Your task to perform on an android device: Search for good Thai restaurants Image 0: 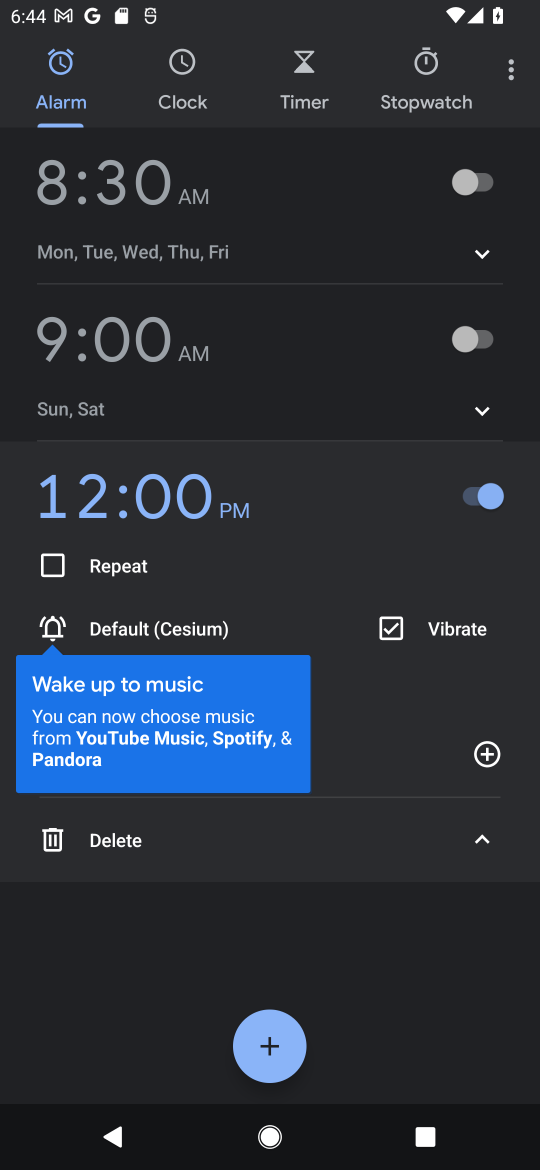
Step 0: press home button
Your task to perform on an android device: Search for good Thai restaurants Image 1: 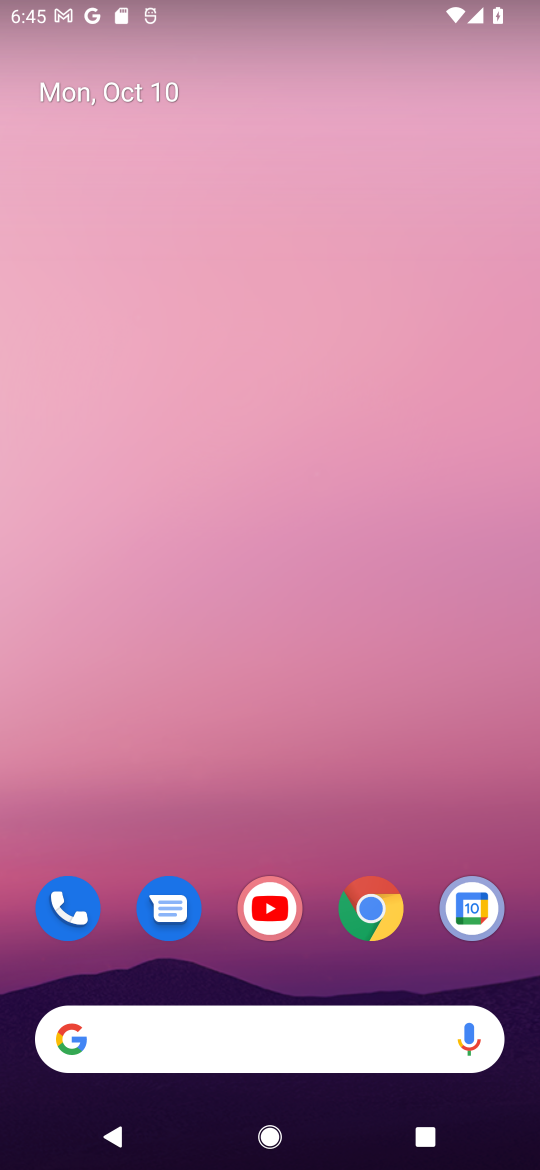
Step 1: drag from (276, 776) to (327, 79)
Your task to perform on an android device: Search for good Thai restaurants Image 2: 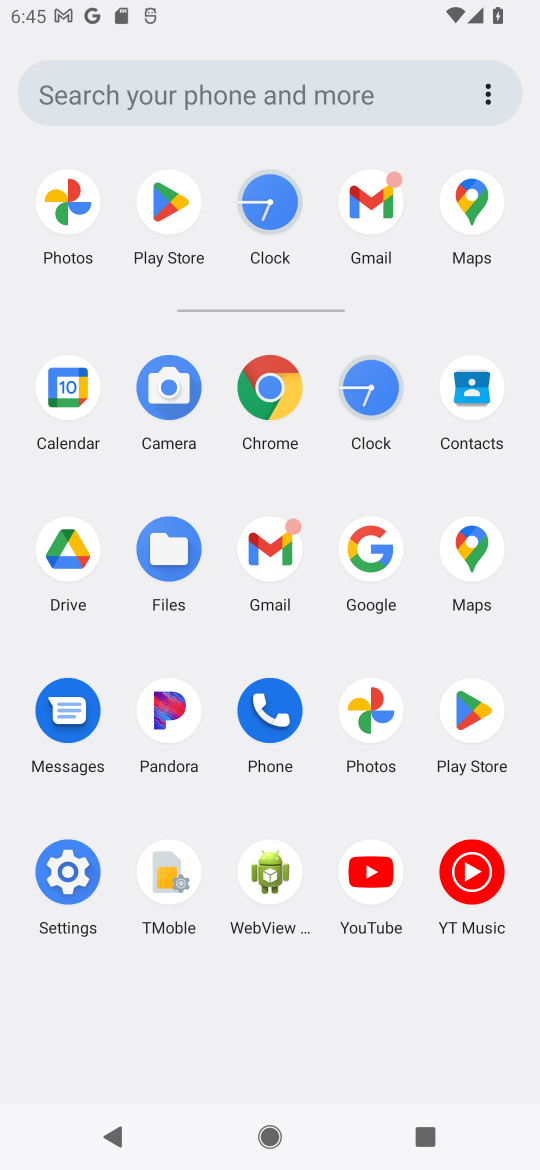
Step 2: click (266, 409)
Your task to perform on an android device: Search for good Thai restaurants Image 3: 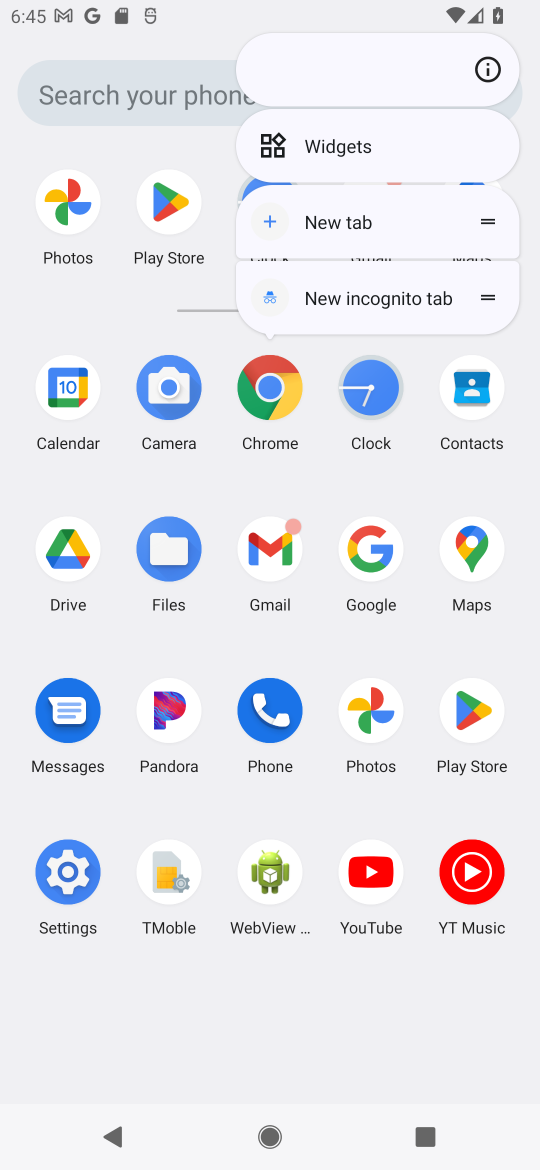
Step 3: click (277, 394)
Your task to perform on an android device: Search for good Thai restaurants Image 4: 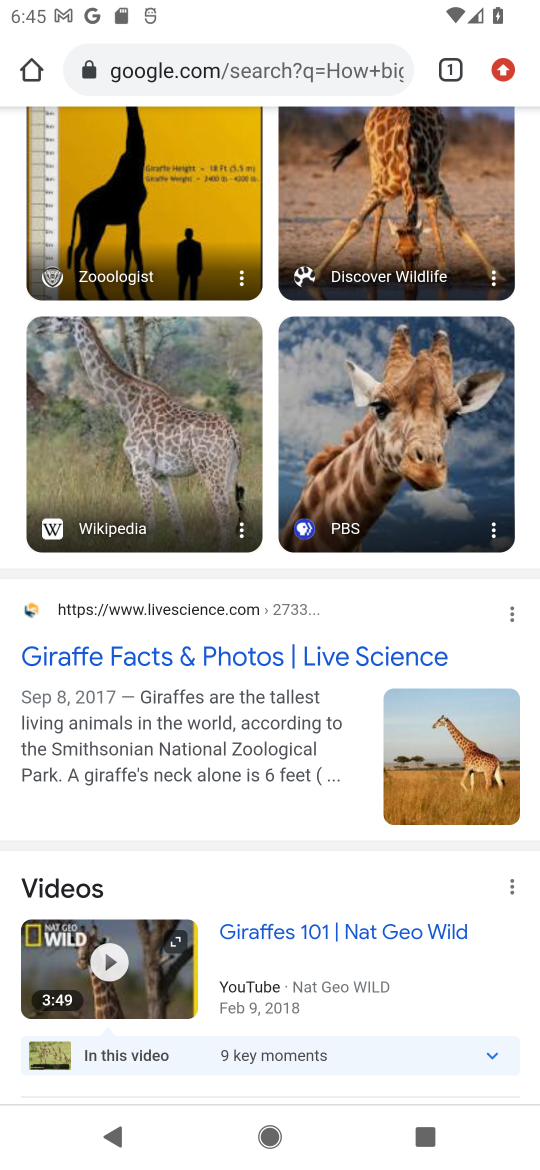
Step 4: click (306, 62)
Your task to perform on an android device: Search for good Thai restaurants Image 5: 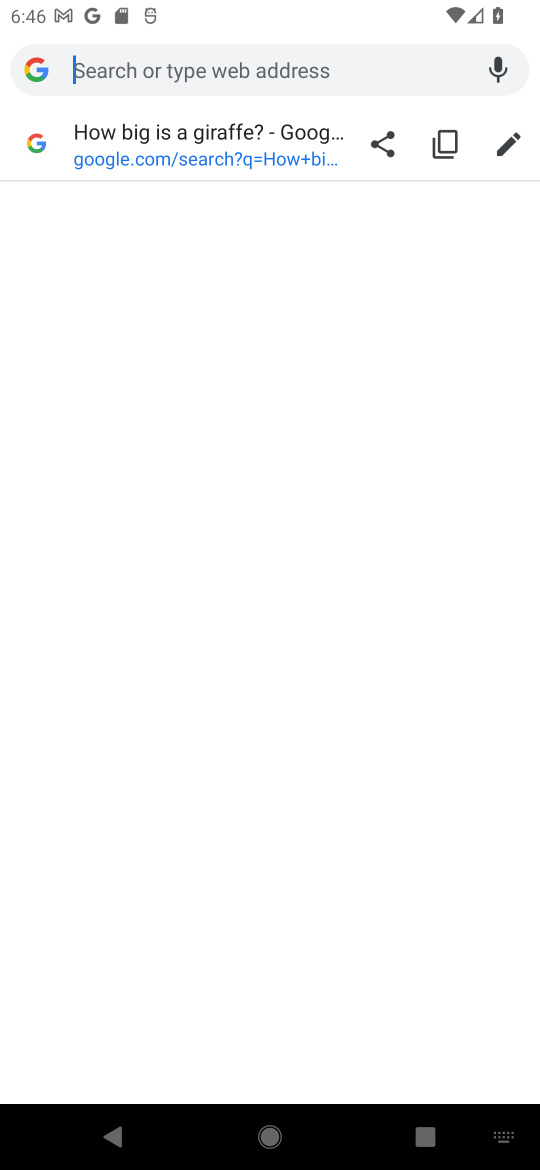
Step 5: type "good thai restaurants"
Your task to perform on an android device: Search for good Thai restaurants Image 6: 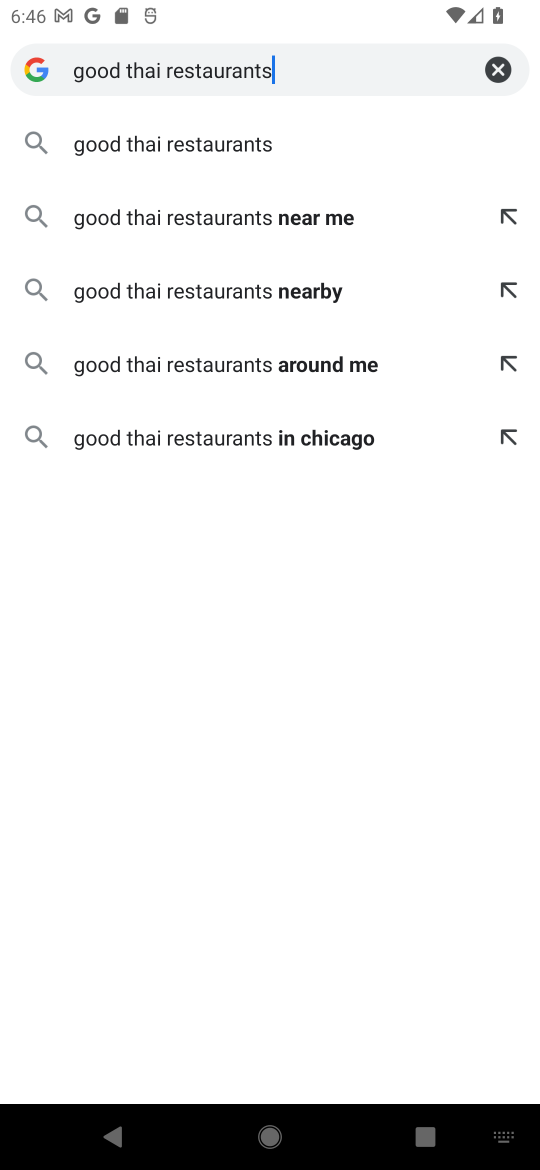
Step 6: press enter
Your task to perform on an android device: Search for good Thai restaurants Image 7: 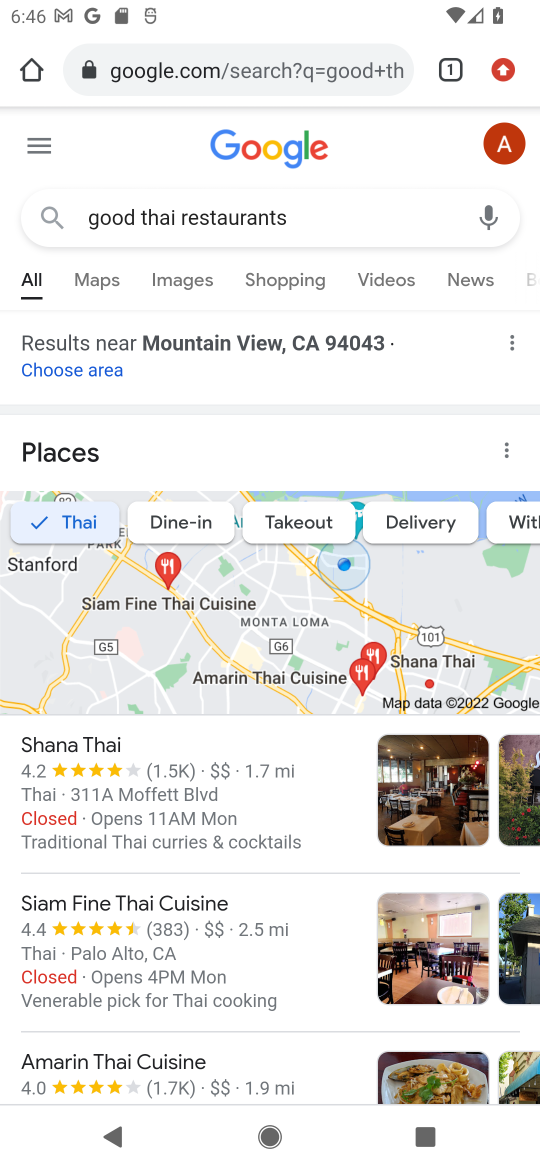
Step 7: task complete